Your task to perform on an android device: Empty the shopping cart on ebay.com. Search for usb-c to usb-b on ebay.com, select the first entry, and add it to the cart. Image 0: 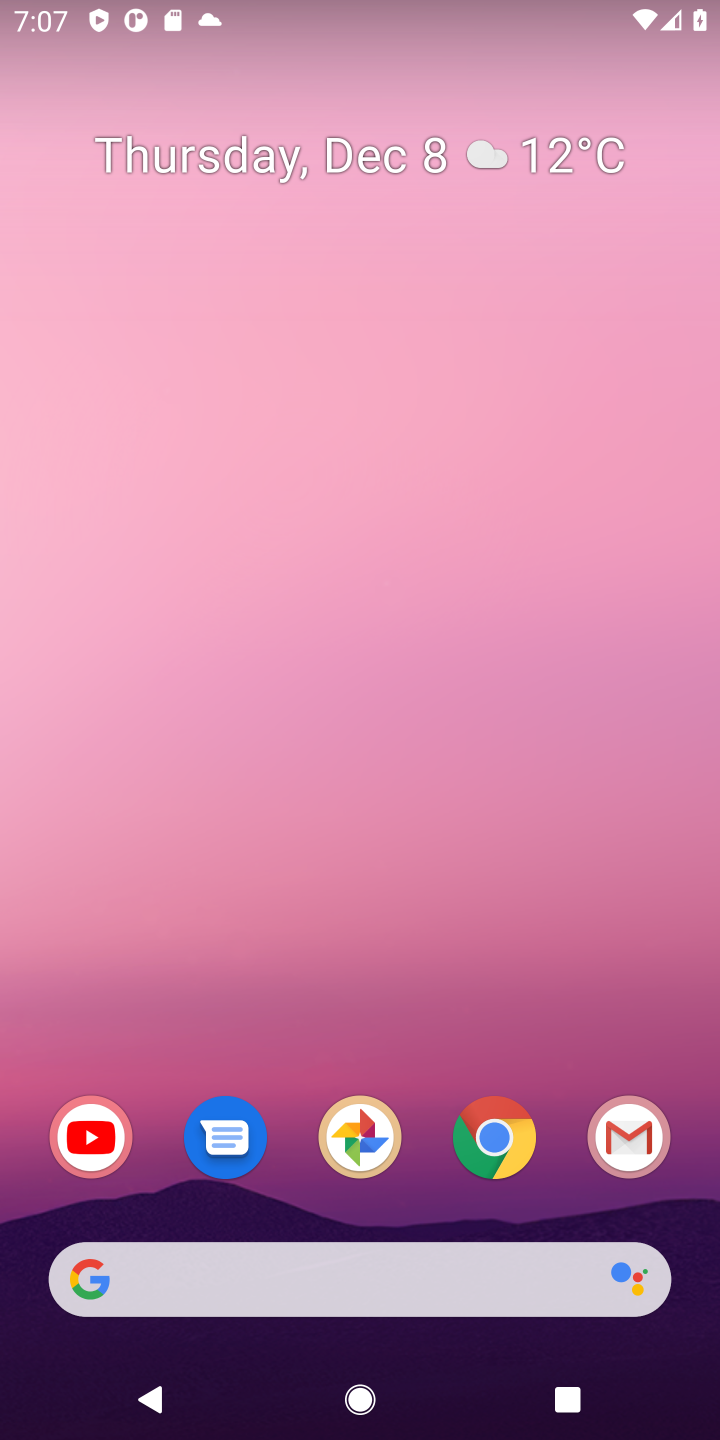
Step 0: click (512, 1163)
Your task to perform on an android device: Empty the shopping cart on ebay.com. Search for usb-c to usb-b on ebay.com, select the first entry, and add it to the cart. Image 1: 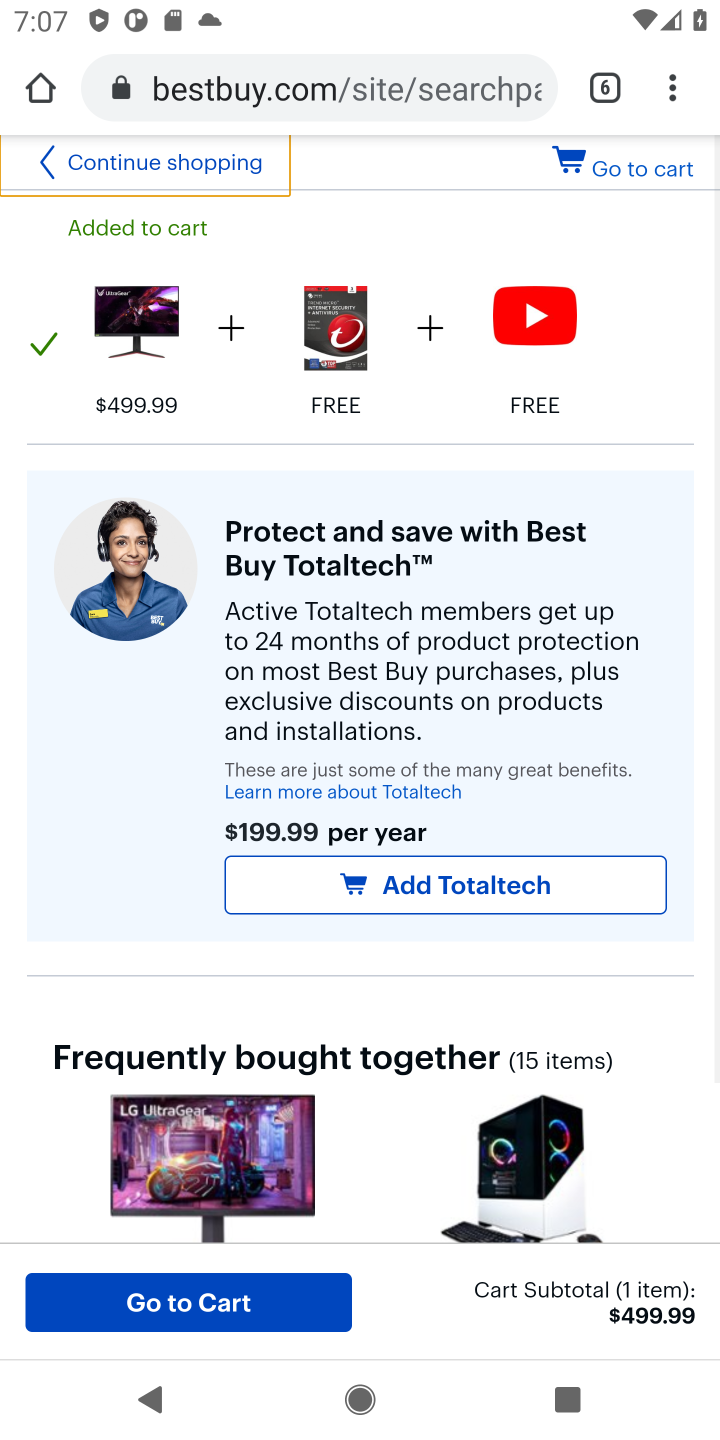
Step 1: click (610, 93)
Your task to perform on an android device: Empty the shopping cart on ebay.com. Search for usb-c to usb-b on ebay.com, select the first entry, and add it to the cart. Image 2: 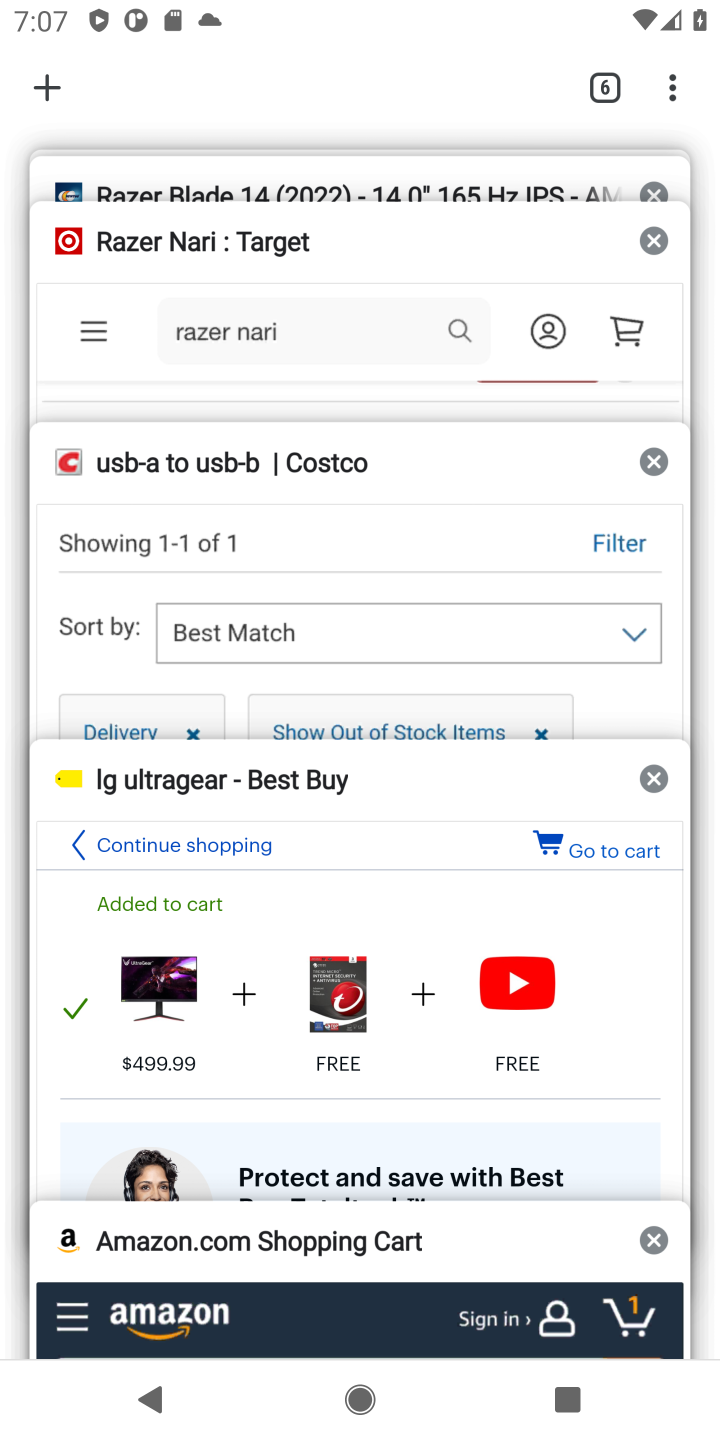
Step 2: drag from (348, 180) to (202, 780)
Your task to perform on an android device: Empty the shopping cart on ebay.com. Search for usb-c to usb-b on ebay.com, select the first entry, and add it to the cart. Image 3: 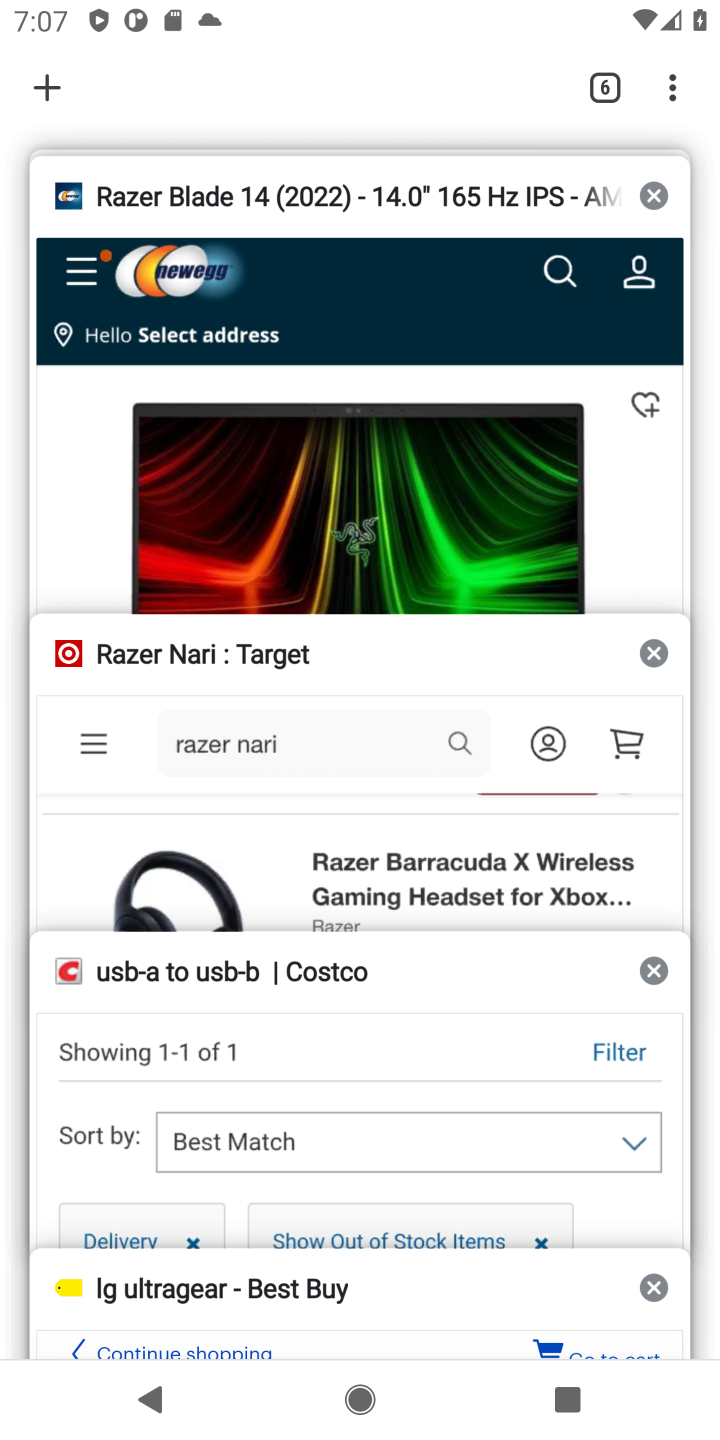
Step 3: drag from (280, 187) to (221, 635)
Your task to perform on an android device: Empty the shopping cart on ebay.com. Search for usb-c to usb-b on ebay.com, select the first entry, and add it to the cart. Image 4: 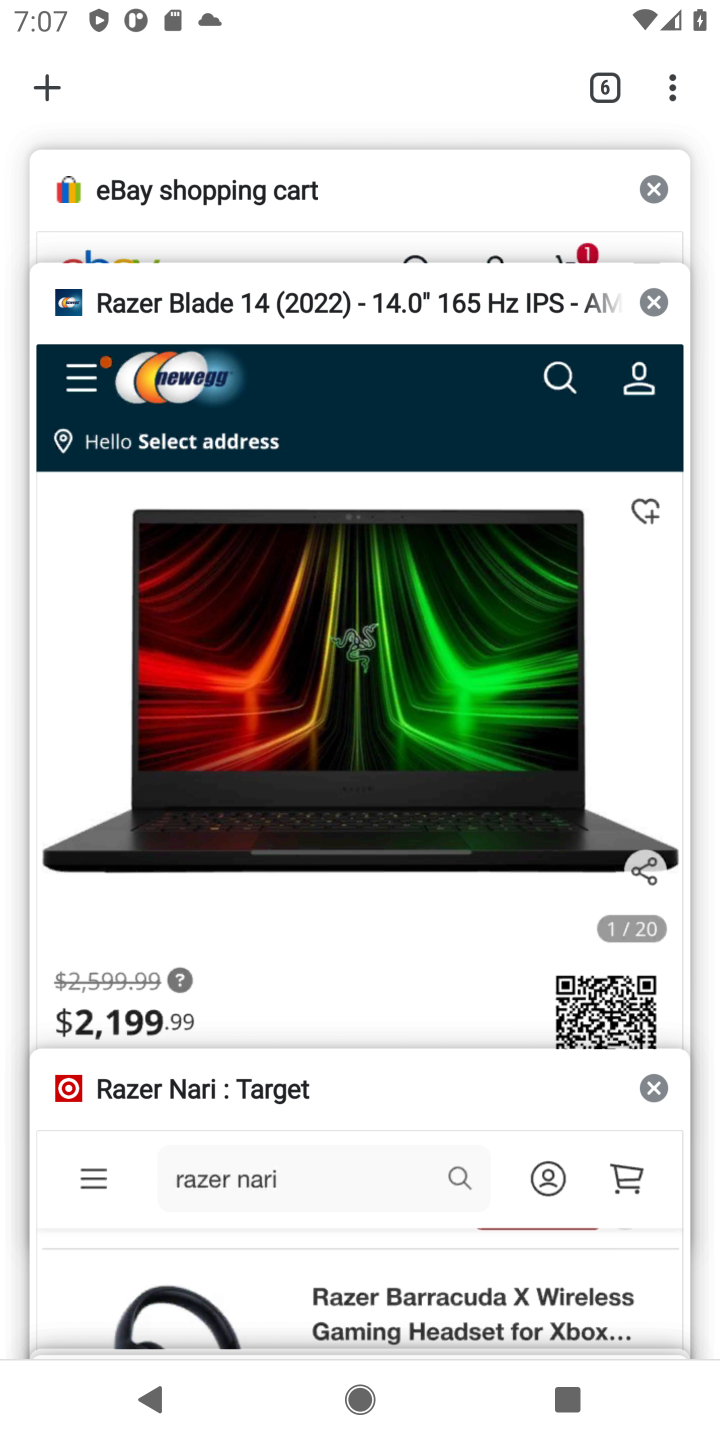
Step 4: click (240, 207)
Your task to perform on an android device: Empty the shopping cart on ebay.com. Search for usb-c to usb-b on ebay.com, select the first entry, and add it to the cart. Image 5: 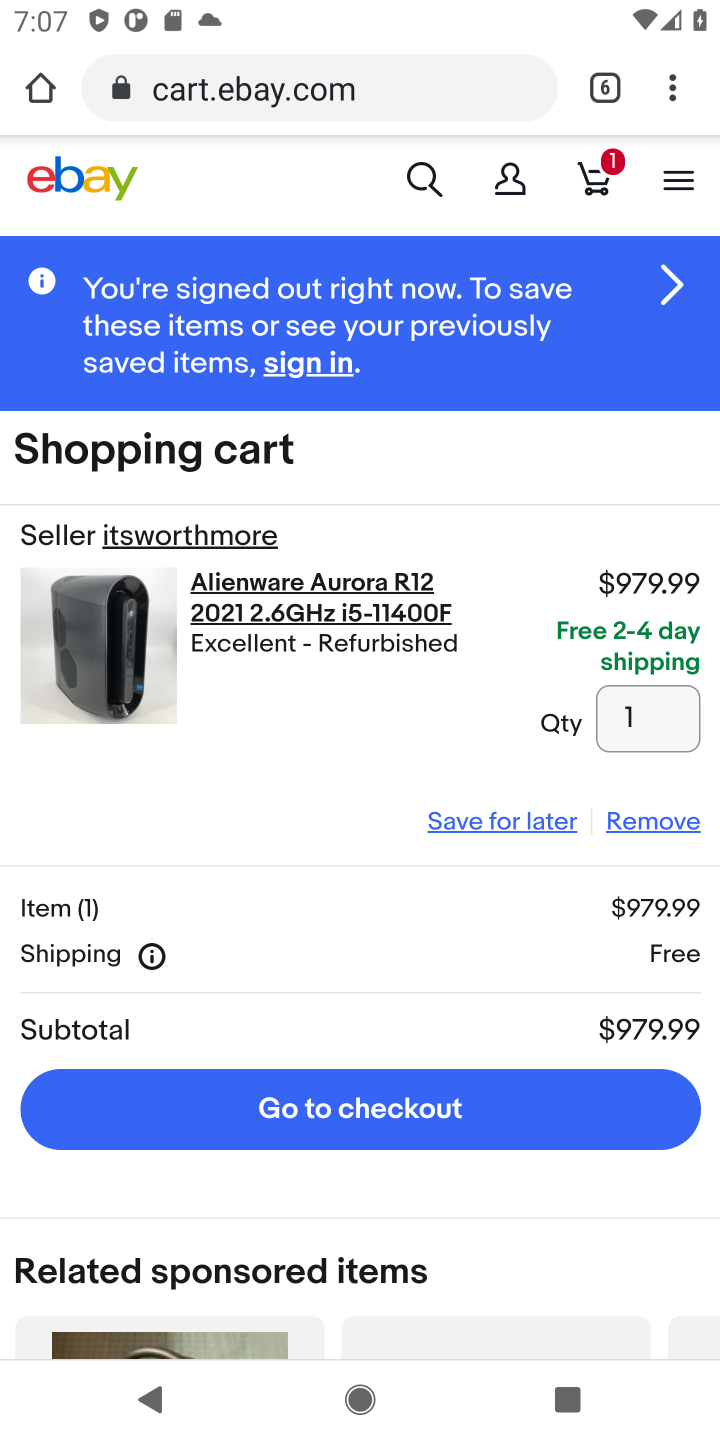
Step 5: click (637, 821)
Your task to perform on an android device: Empty the shopping cart on ebay.com. Search for usb-c to usb-b on ebay.com, select the first entry, and add it to the cart. Image 6: 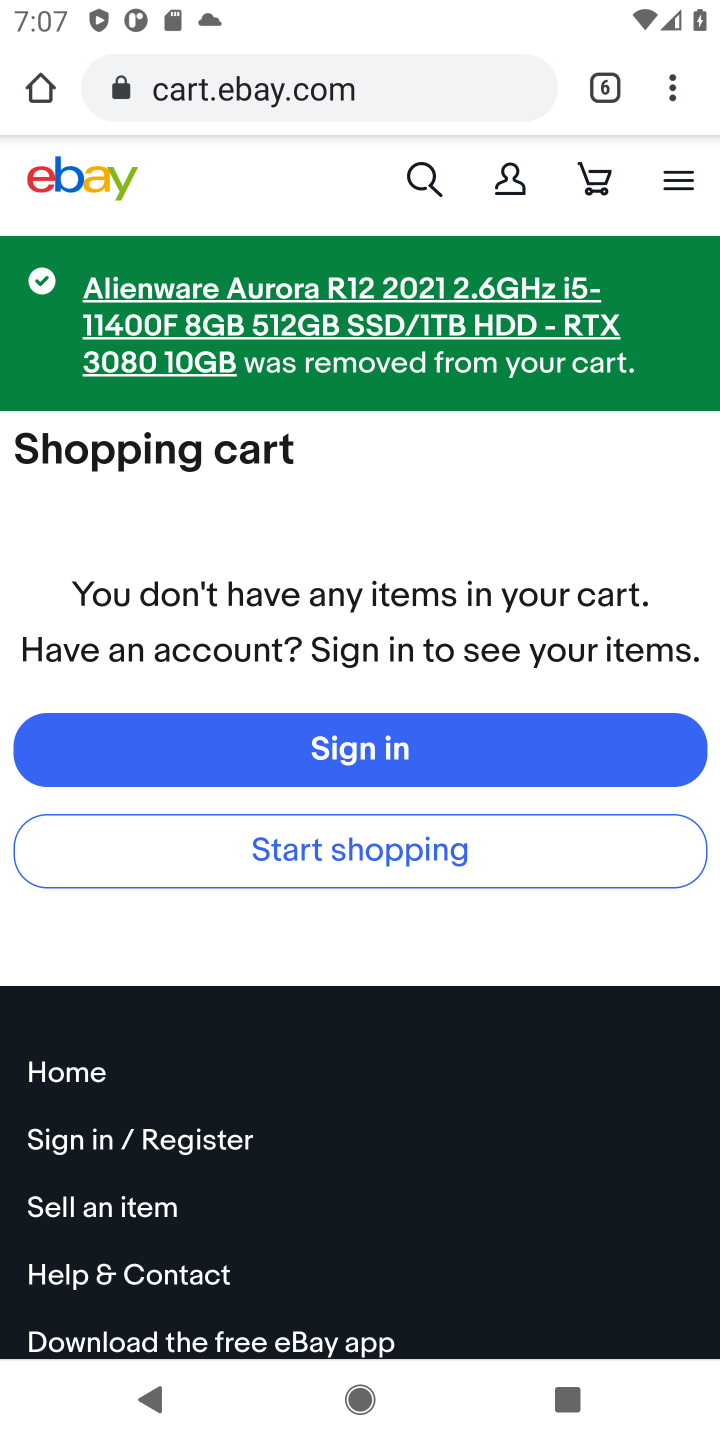
Step 6: click (411, 177)
Your task to perform on an android device: Empty the shopping cart on ebay.com. Search for usb-c to usb-b on ebay.com, select the first entry, and add it to the cart. Image 7: 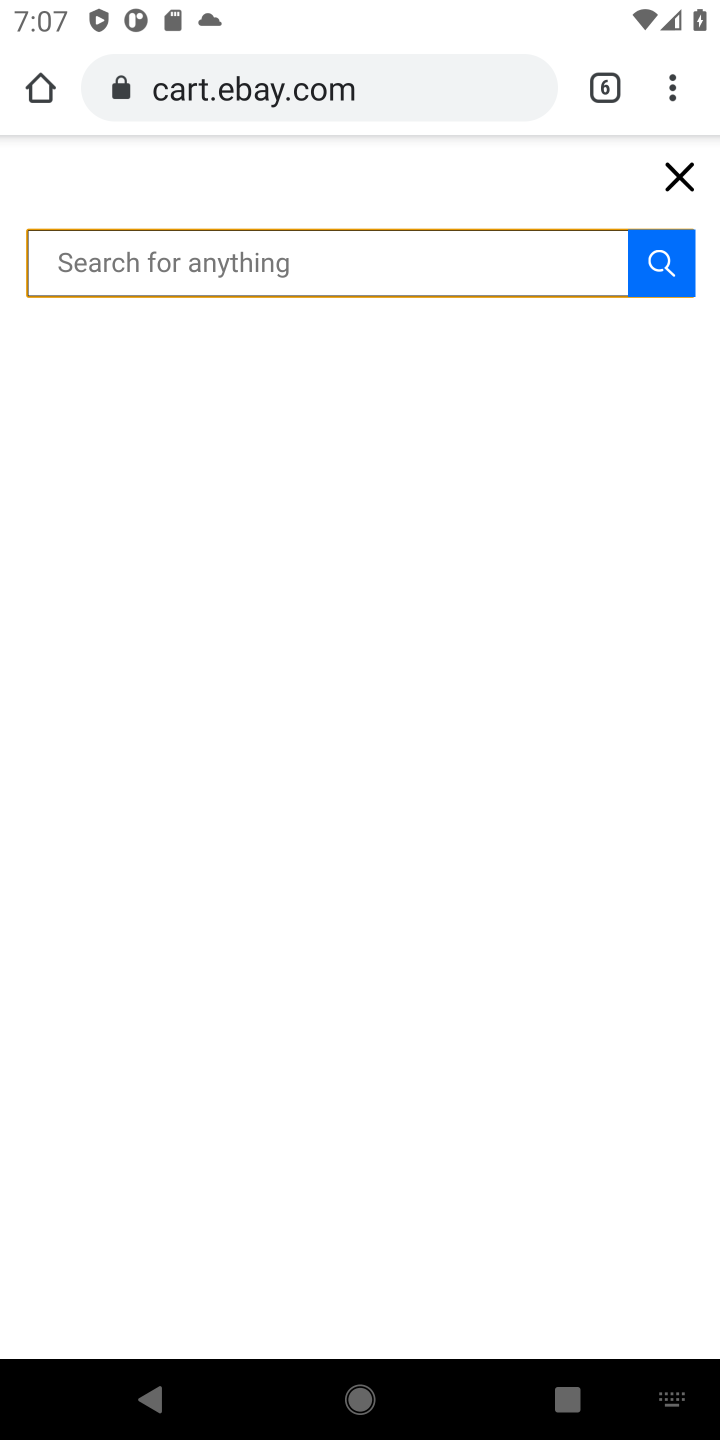
Step 7: type "usb-c to usb-b"
Your task to perform on an android device: Empty the shopping cart on ebay.com. Search for usb-c to usb-b on ebay.com, select the first entry, and add it to the cart. Image 8: 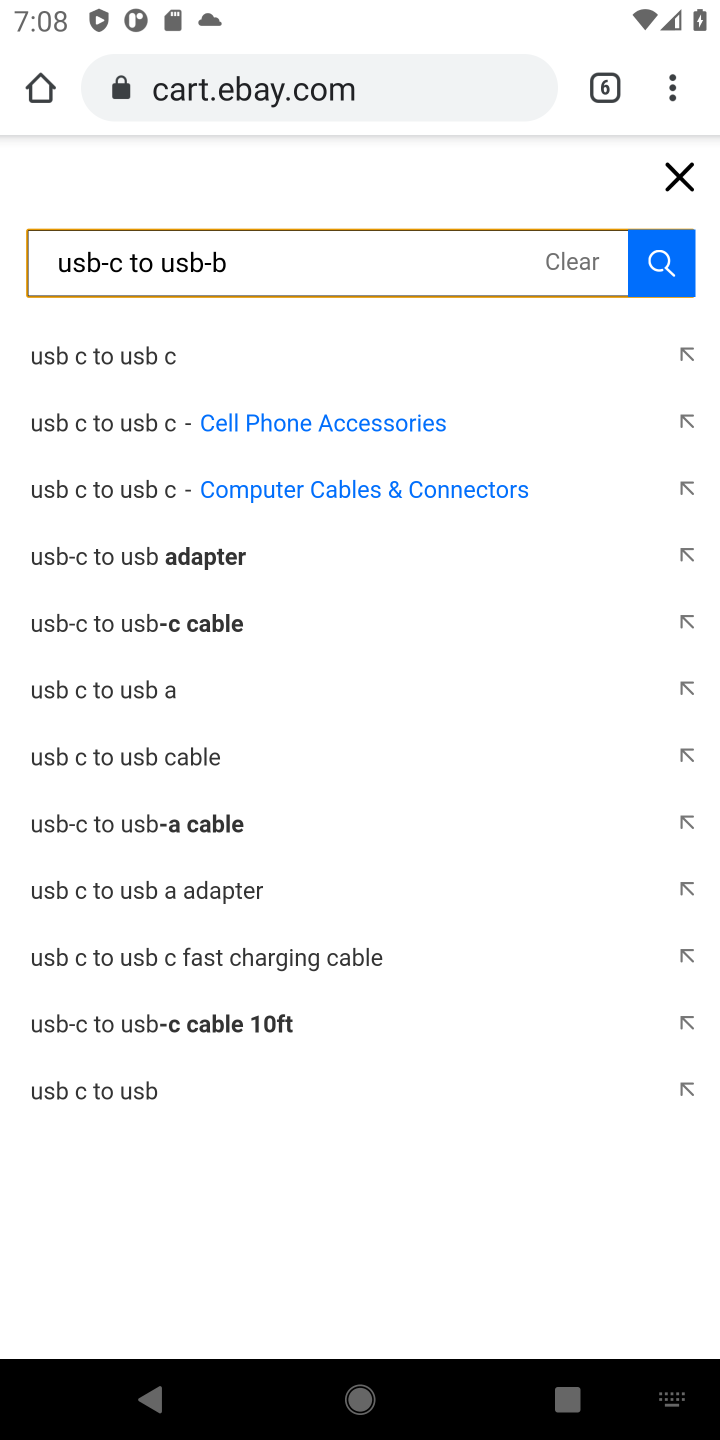
Step 8: click (142, 483)
Your task to perform on an android device: Empty the shopping cart on ebay.com. Search for usb-c to usb-b on ebay.com, select the first entry, and add it to the cart. Image 9: 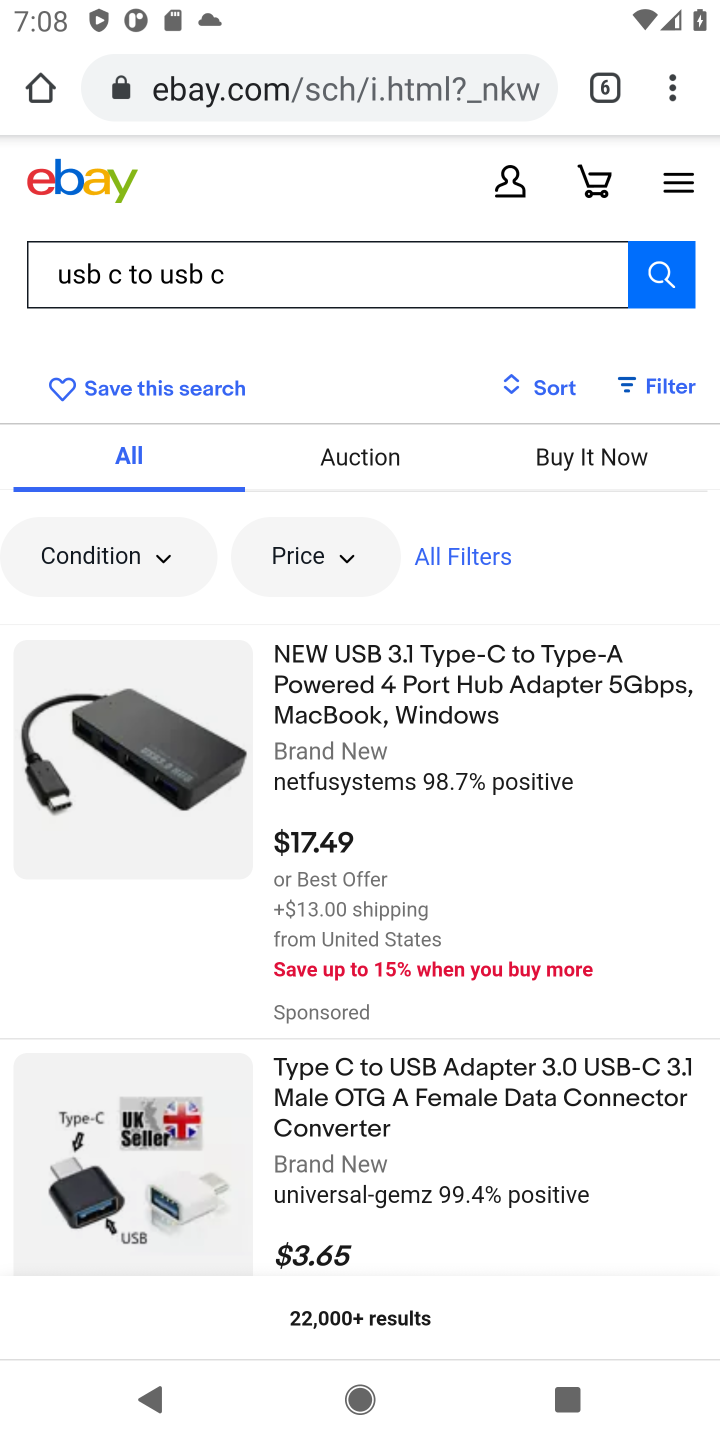
Step 9: click (354, 691)
Your task to perform on an android device: Empty the shopping cart on ebay.com. Search for usb-c to usb-b on ebay.com, select the first entry, and add it to the cart. Image 10: 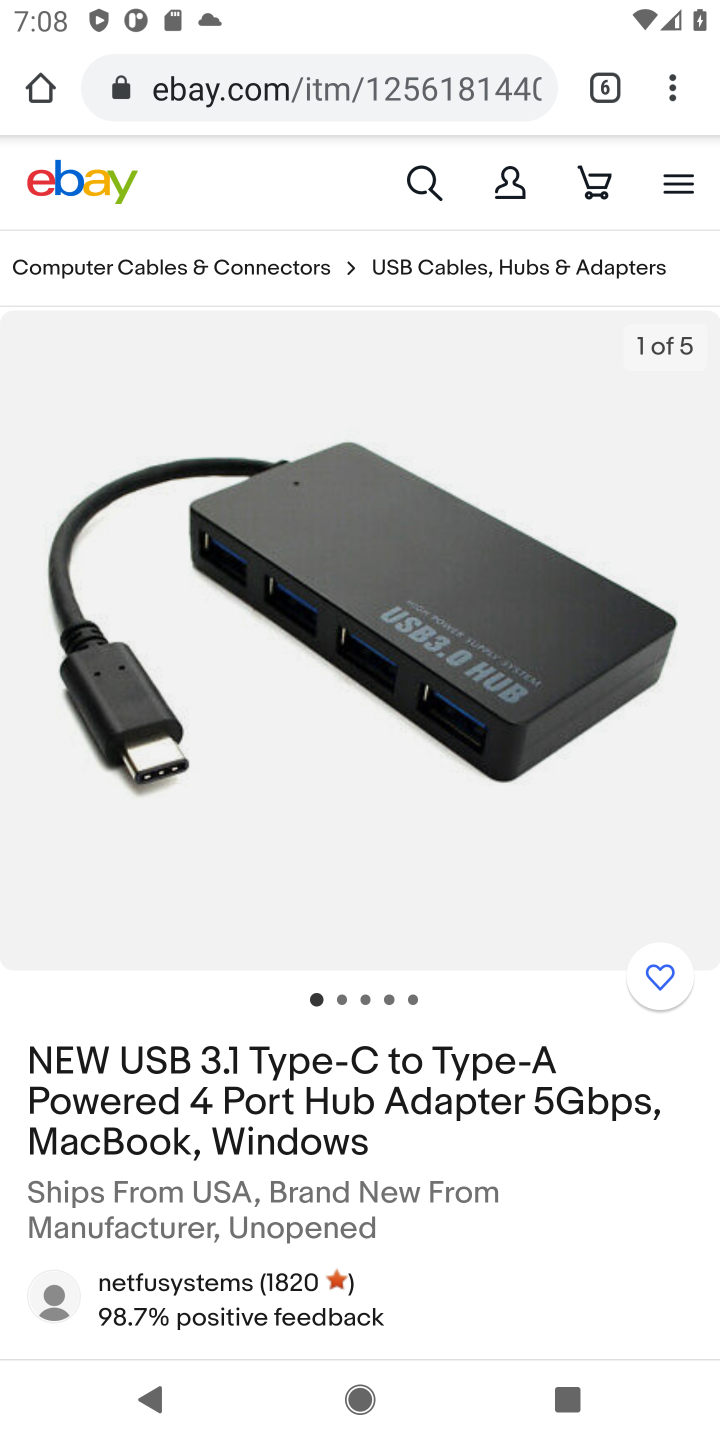
Step 10: drag from (519, 1248) to (581, 494)
Your task to perform on an android device: Empty the shopping cart on ebay.com. Search for usb-c to usb-b on ebay.com, select the first entry, and add it to the cart. Image 11: 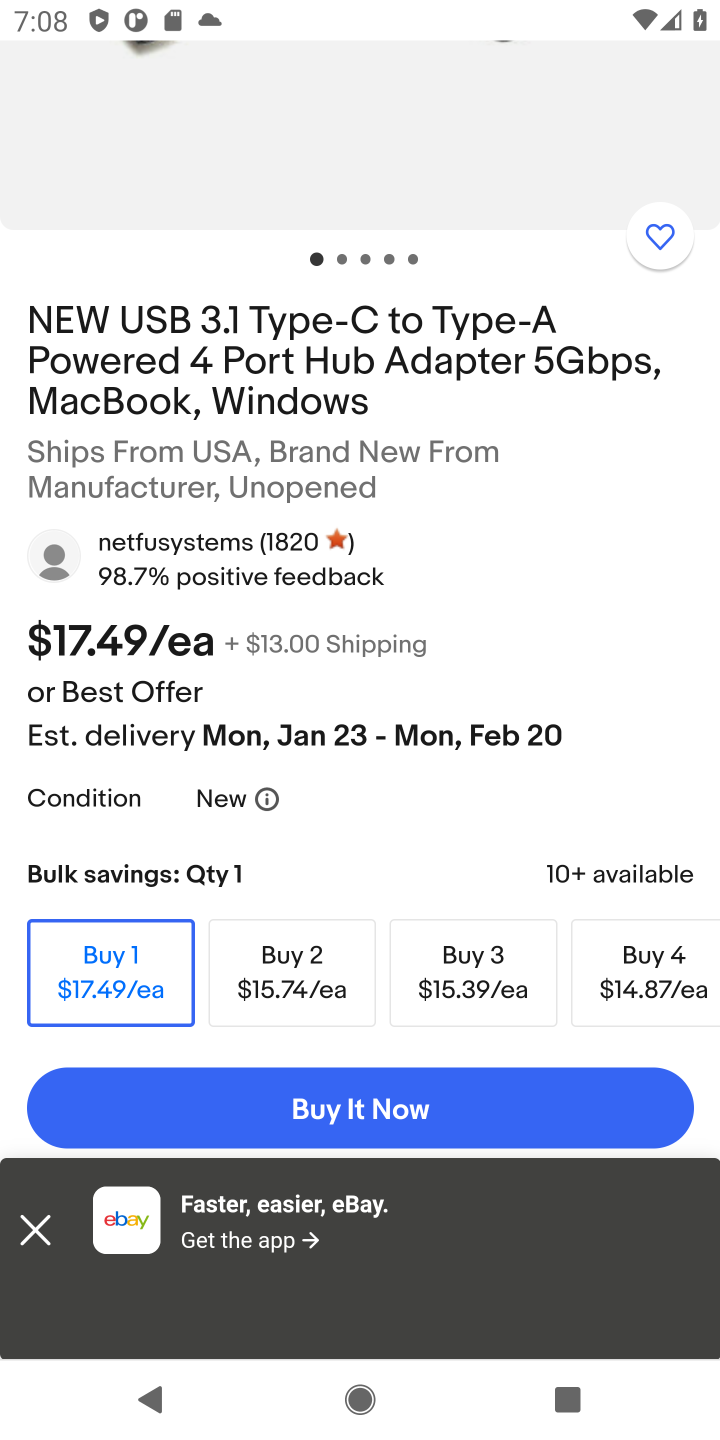
Step 11: click (22, 1233)
Your task to perform on an android device: Empty the shopping cart on ebay.com. Search for usb-c to usb-b on ebay.com, select the first entry, and add it to the cart. Image 12: 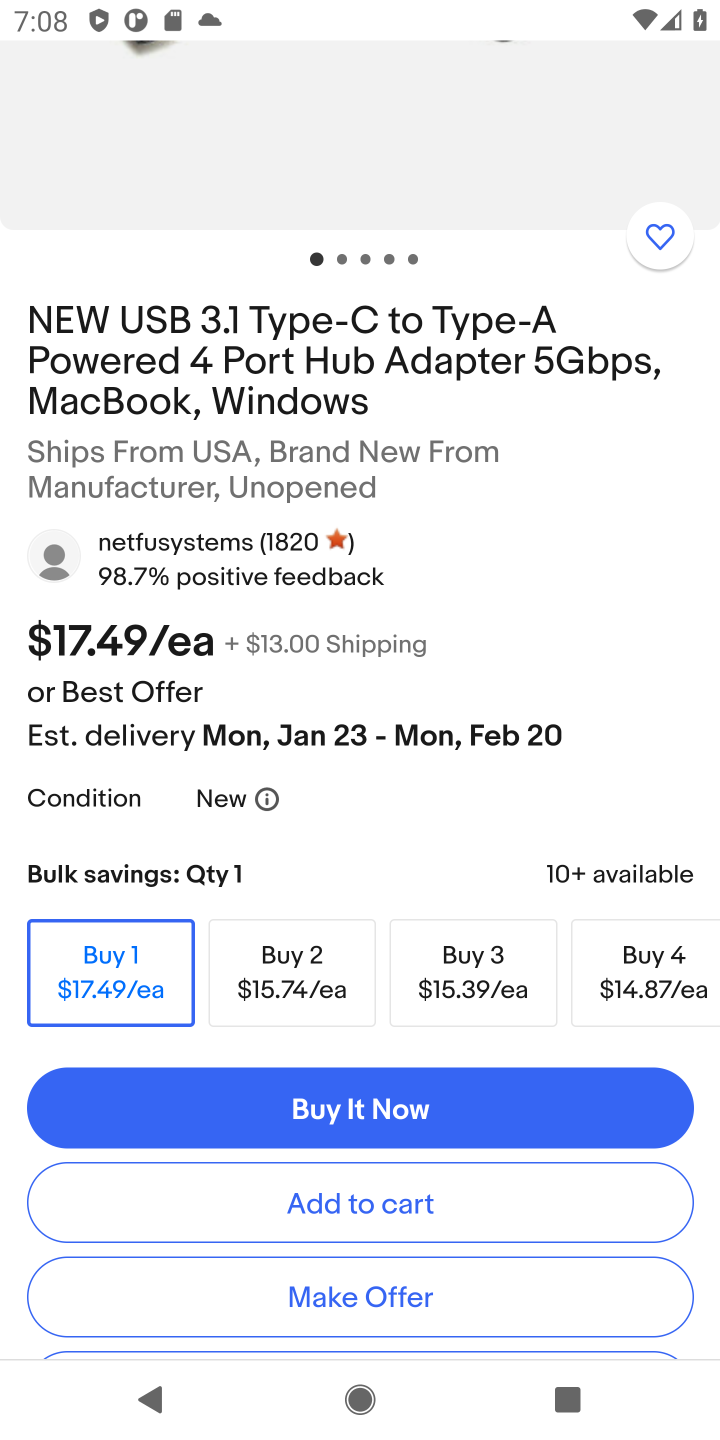
Step 12: click (366, 1213)
Your task to perform on an android device: Empty the shopping cart on ebay.com. Search for usb-c to usb-b on ebay.com, select the first entry, and add it to the cart. Image 13: 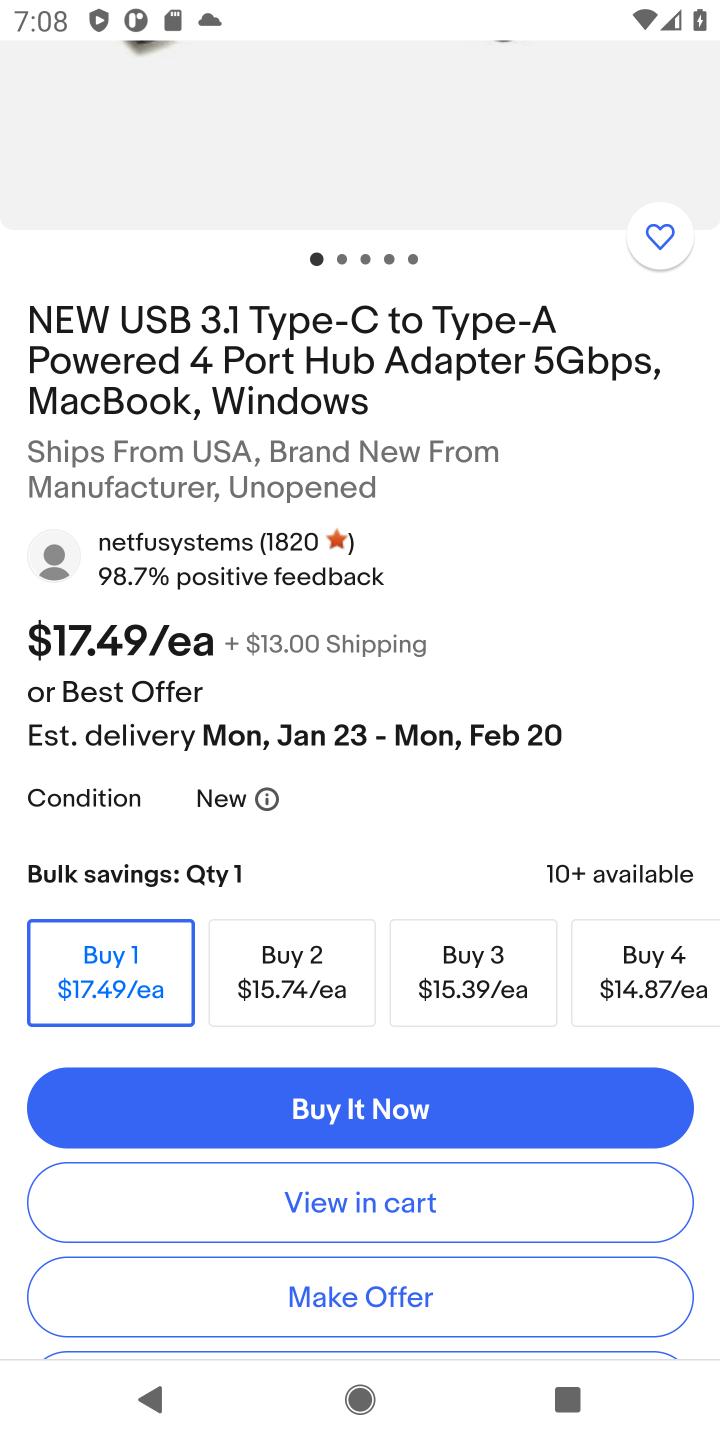
Step 13: task complete